Your task to perform on an android device: open chrome and create a bookmark for the current page Image 0: 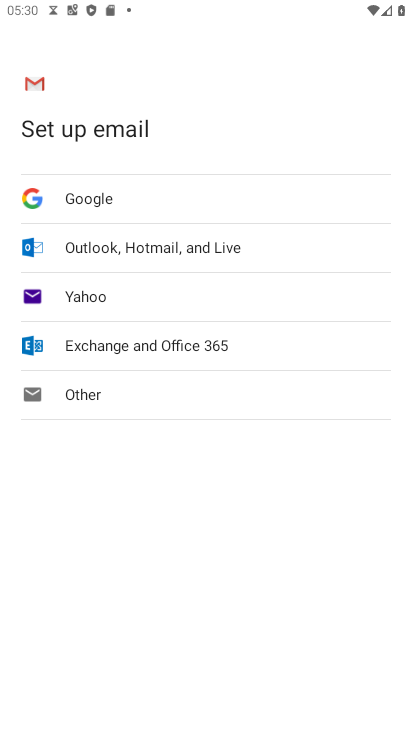
Step 0: press home button
Your task to perform on an android device: open chrome and create a bookmark for the current page Image 1: 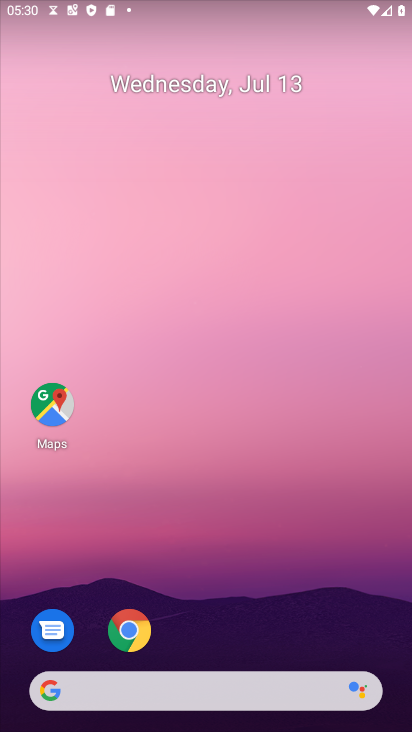
Step 1: drag from (286, 697) to (246, 1)
Your task to perform on an android device: open chrome and create a bookmark for the current page Image 2: 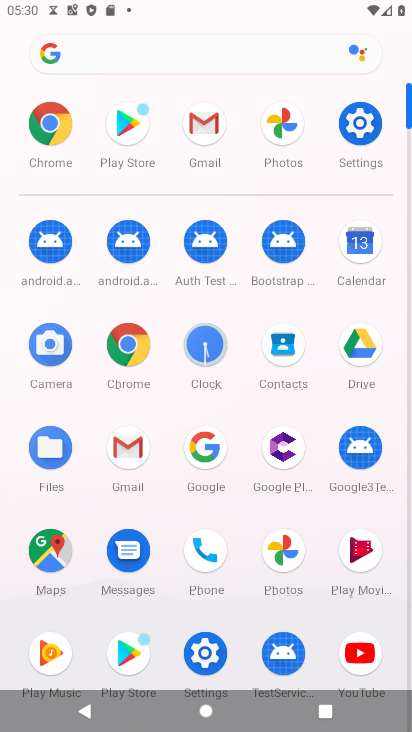
Step 2: click (131, 335)
Your task to perform on an android device: open chrome and create a bookmark for the current page Image 3: 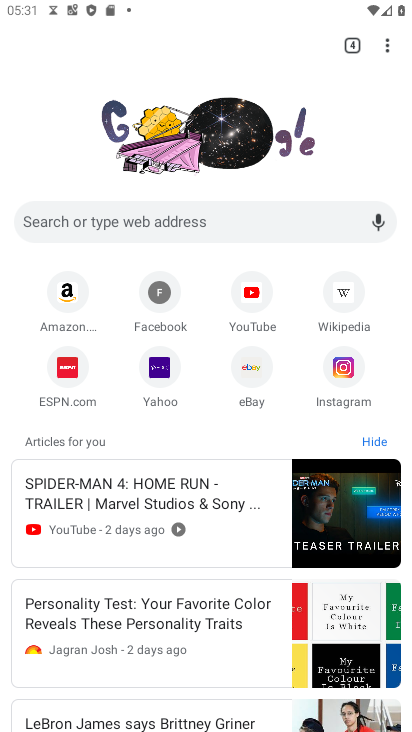
Step 3: task complete